Your task to perform on an android device: Go to accessibility settings Image 0: 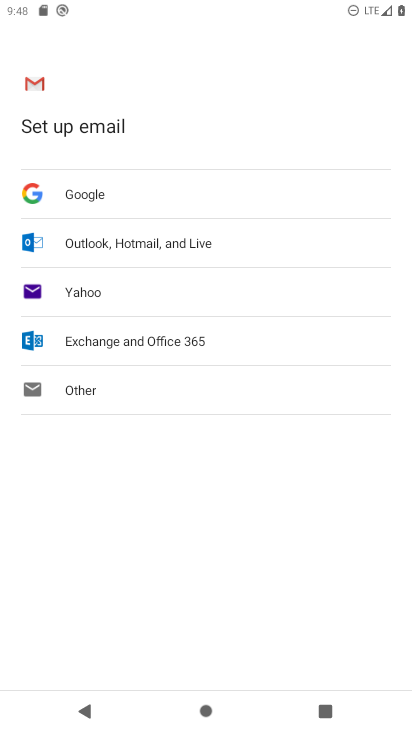
Step 0: press home button
Your task to perform on an android device: Go to accessibility settings Image 1: 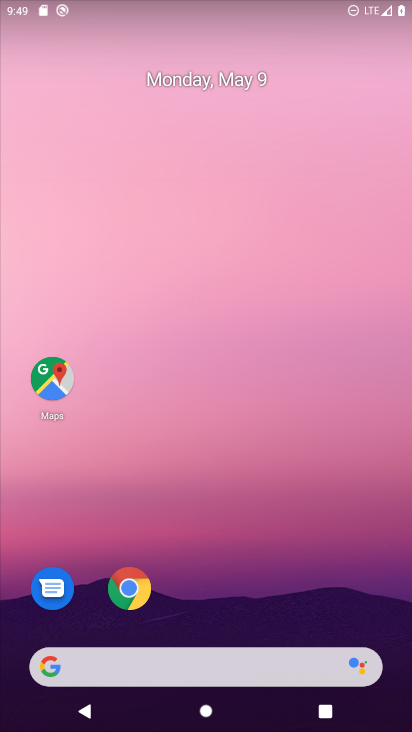
Step 1: drag from (240, 576) to (189, 55)
Your task to perform on an android device: Go to accessibility settings Image 2: 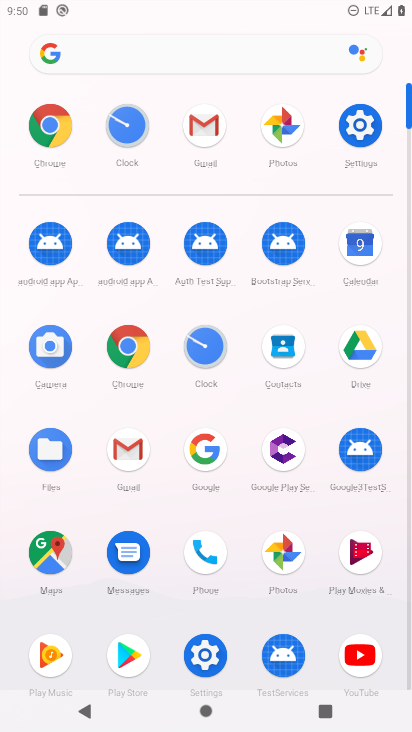
Step 2: click (365, 145)
Your task to perform on an android device: Go to accessibility settings Image 3: 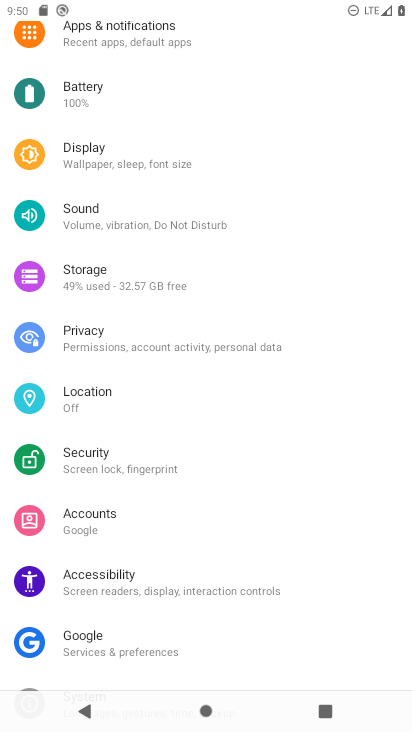
Step 3: click (185, 571)
Your task to perform on an android device: Go to accessibility settings Image 4: 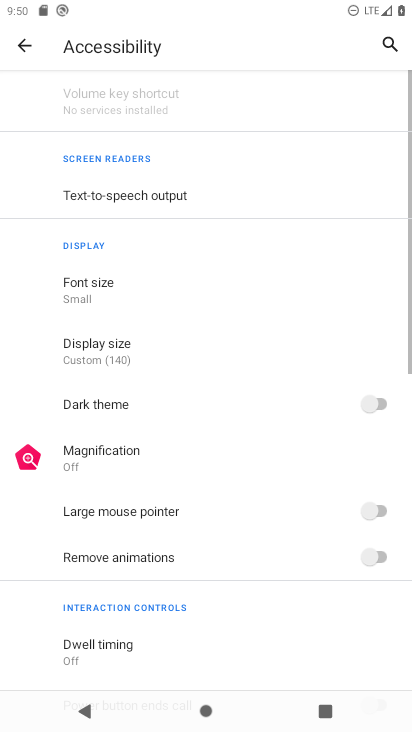
Step 4: task complete